Your task to perform on an android device: Search for vegetarian restaurants on Maps Image 0: 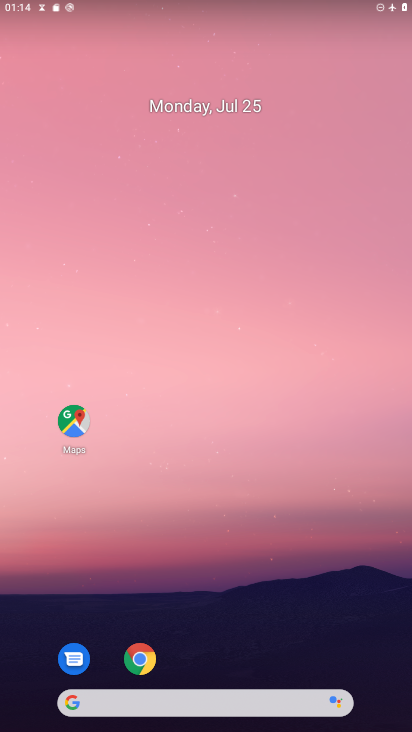
Step 0: drag from (257, 626) to (239, 291)
Your task to perform on an android device: Search for vegetarian restaurants on Maps Image 1: 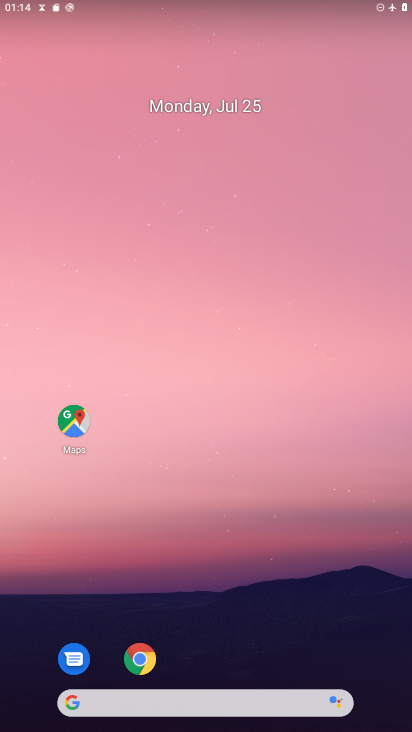
Step 1: drag from (217, 605) to (243, 318)
Your task to perform on an android device: Search for vegetarian restaurants on Maps Image 2: 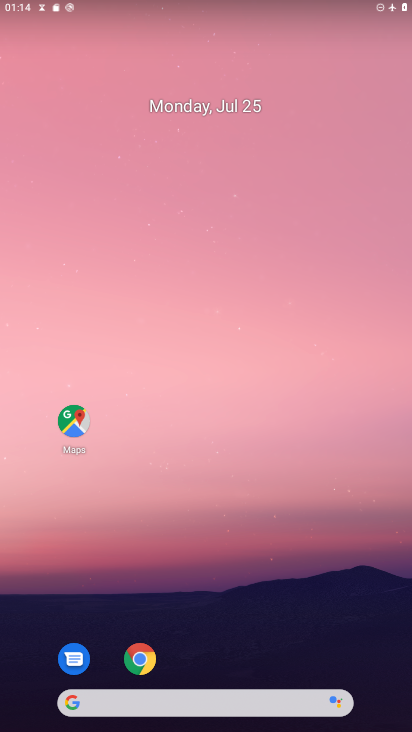
Step 2: drag from (212, 695) to (212, 145)
Your task to perform on an android device: Search for vegetarian restaurants on Maps Image 3: 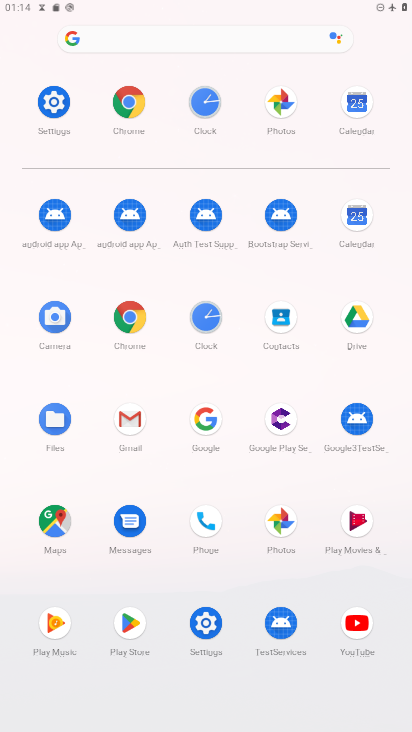
Step 3: click (54, 514)
Your task to perform on an android device: Search for vegetarian restaurants on Maps Image 4: 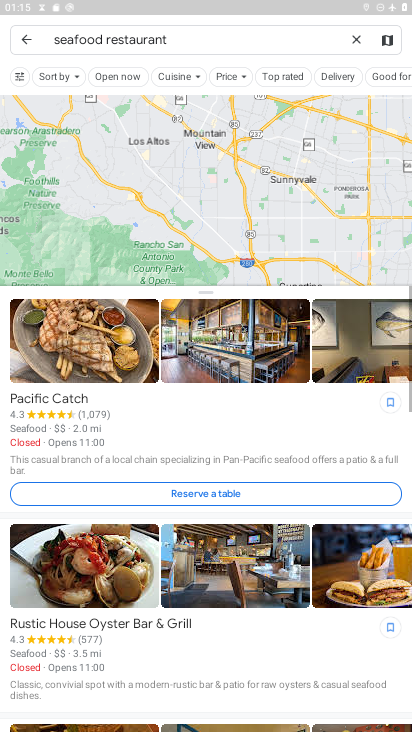
Step 4: click (356, 38)
Your task to perform on an android device: Search for vegetarian restaurants on Maps Image 5: 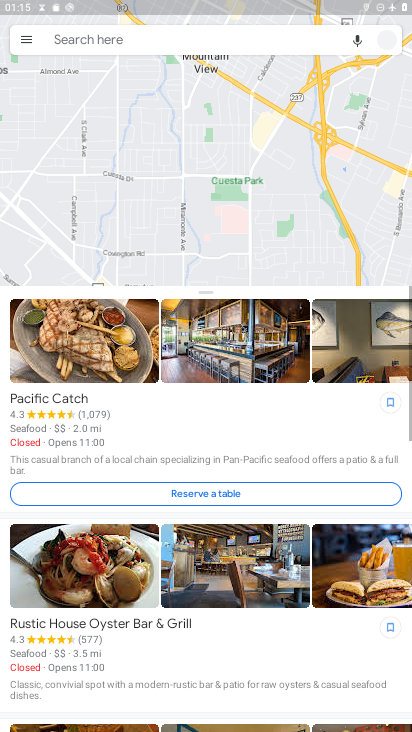
Step 5: click (222, 33)
Your task to perform on an android device: Search for vegetarian restaurants on Maps Image 6: 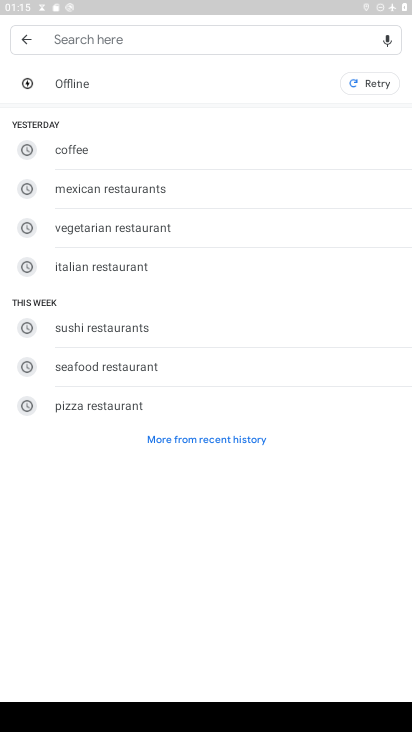
Step 6: click (149, 224)
Your task to perform on an android device: Search for vegetarian restaurants on Maps Image 7: 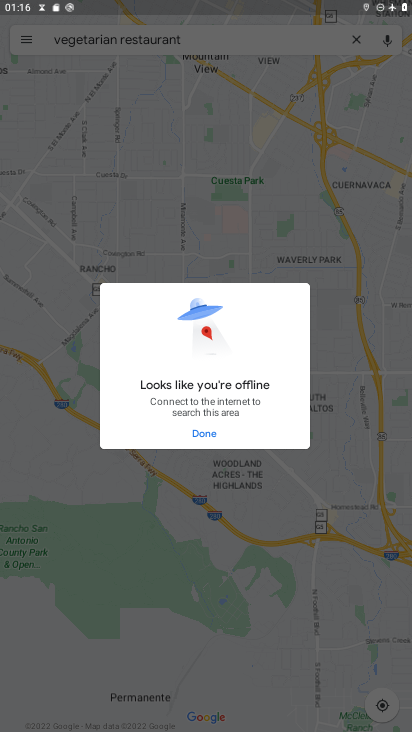
Step 7: task complete